Your task to perform on an android device: turn off notifications settings in the gmail app Image 0: 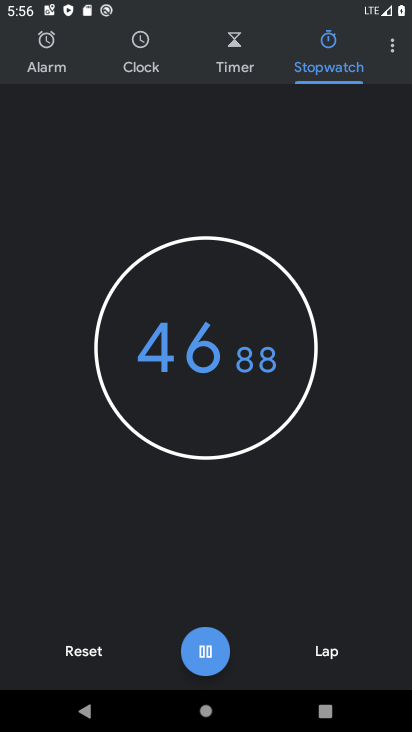
Step 0: press home button
Your task to perform on an android device: turn off notifications settings in the gmail app Image 1: 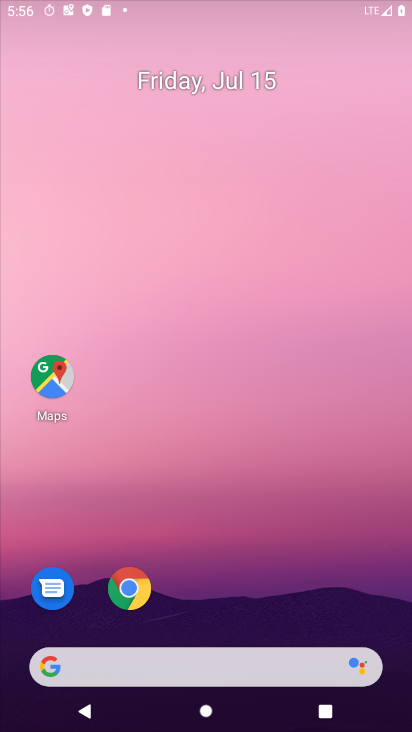
Step 1: drag from (250, 653) to (299, 4)
Your task to perform on an android device: turn off notifications settings in the gmail app Image 2: 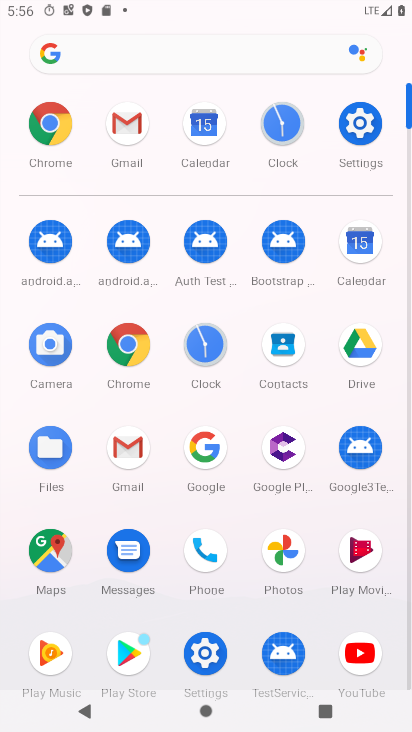
Step 2: click (123, 446)
Your task to perform on an android device: turn off notifications settings in the gmail app Image 3: 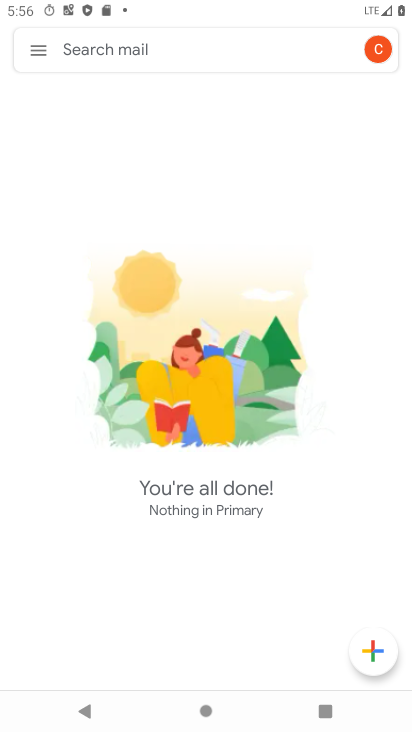
Step 3: click (42, 50)
Your task to perform on an android device: turn off notifications settings in the gmail app Image 4: 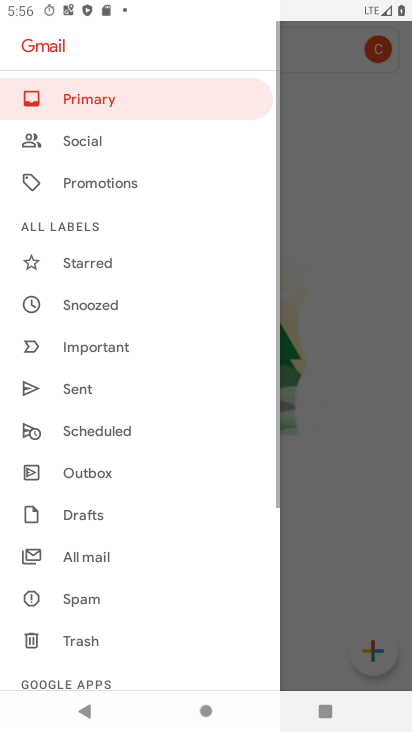
Step 4: drag from (129, 631) to (175, 197)
Your task to perform on an android device: turn off notifications settings in the gmail app Image 5: 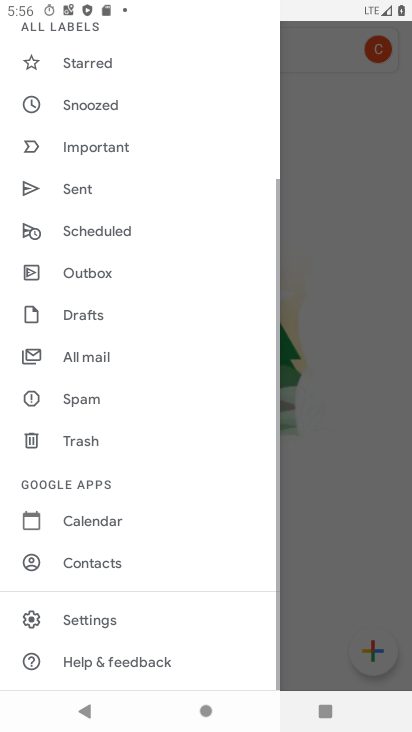
Step 5: click (92, 628)
Your task to perform on an android device: turn off notifications settings in the gmail app Image 6: 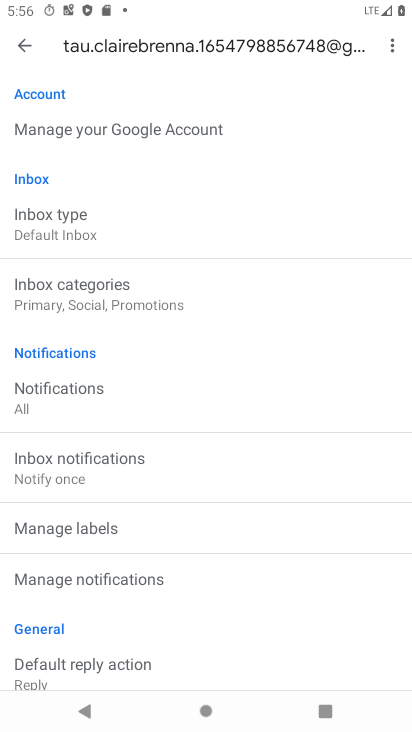
Step 6: click (86, 579)
Your task to perform on an android device: turn off notifications settings in the gmail app Image 7: 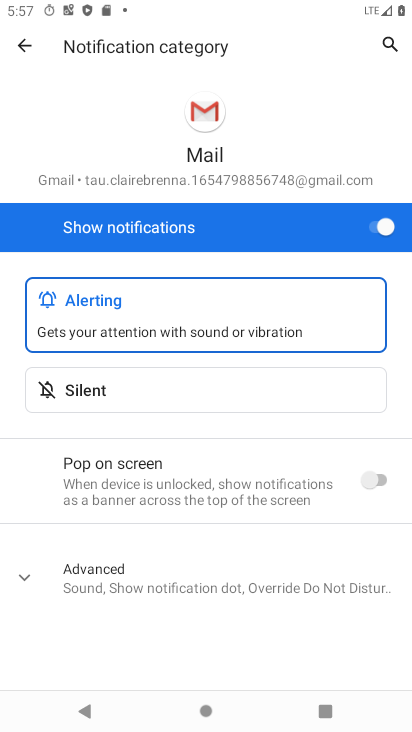
Step 7: click (378, 230)
Your task to perform on an android device: turn off notifications settings in the gmail app Image 8: 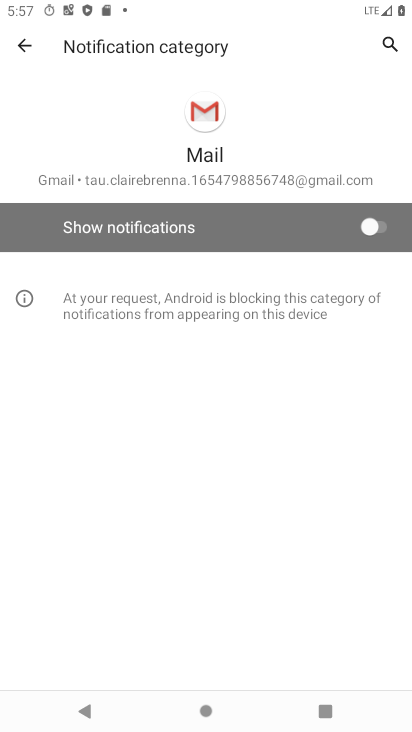
Step 8: task complete